Your task to perform on an android device: set the stopwatch Image 0: 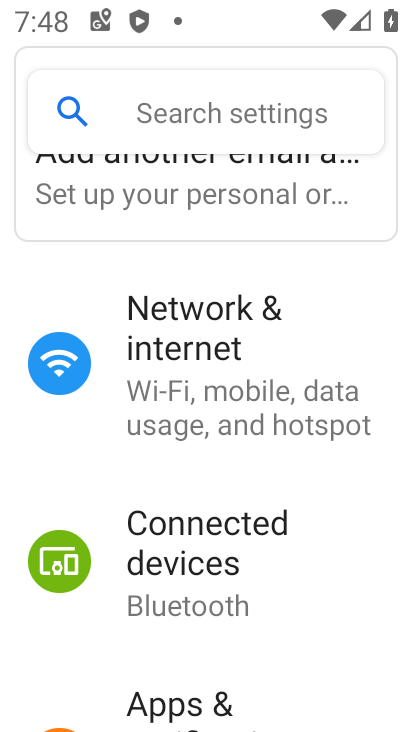
Step 0: press home button
Your task to perform on an android device: set the stopwatch Image 1: 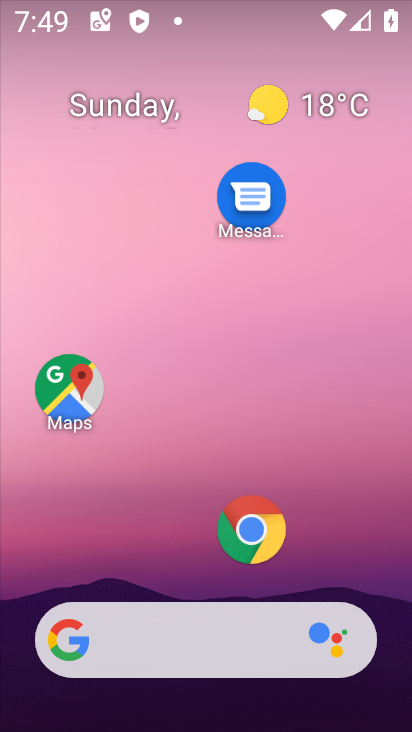
Step 1: click (240, 543)
Your task to perform on an android device: set the stopwatch Image 2: 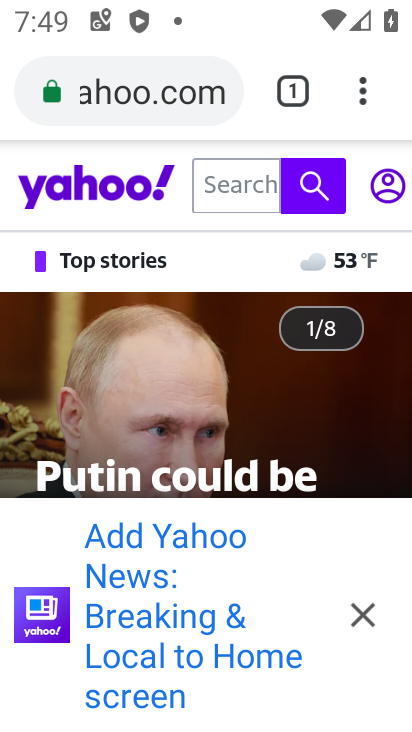
Step 2: task complete